Your task to perform on an android device: Search for the best rated kitchen reno kits on Lowes.com Image 0: 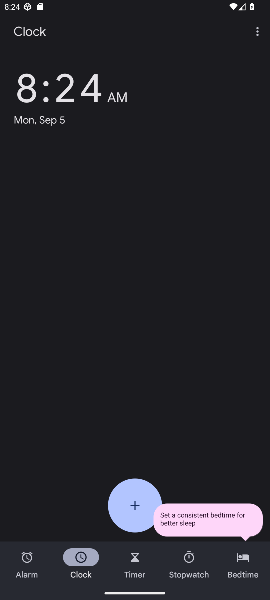
Step 0: press home button
Your task to perform on an android device: Search for the best rated kitchen reno kits on Lowes.com Image 1: 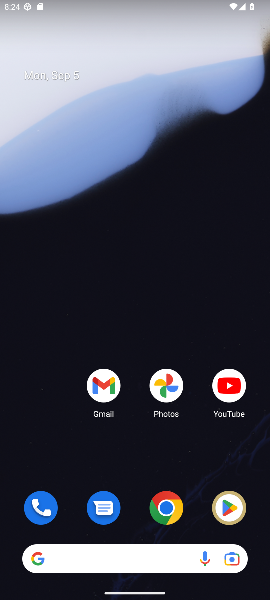
Step 1: click (170, 511)
Your task to perform on an android device: Search for the best rated kitchen reno kits on Lowes.com Image 2: 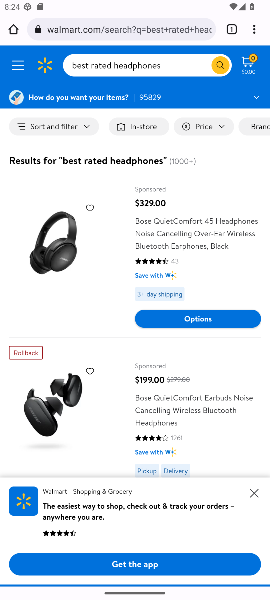
Step 2: click (91, 28)
Your task to perform on an android device: Search for the best rated kitchen reno kits on Lowes.com Image 3: 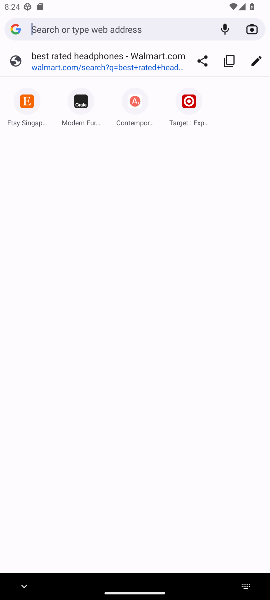
Step 3: type " Lowes.com"
Your task to perform on an android device: Search for the best rated kitchen reno kits on Lowes.com Image 4: 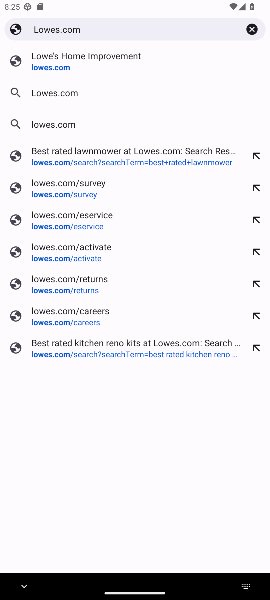
Step 4: click (58, 90)
Your task to perform on an android device: Search for the best rated kitchen reno kits on Lowes.com Image 5: 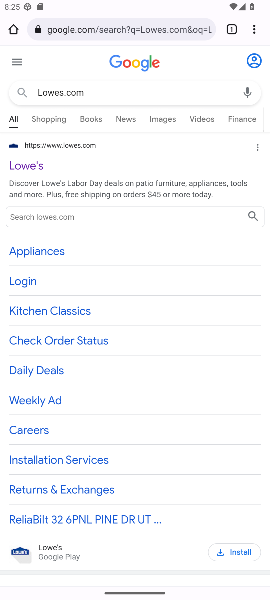
Step 5: click (28, 171)
Your task to perform on an android device: Search for the best rated kitchen reno kits on Lowes.com Image 6: 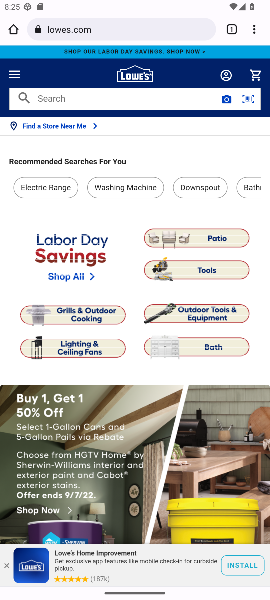
Step 6: click (65, 104)
Your task to perform on an android device: Search for the best rated kitchen reno kits on Lowes.com Image 7: 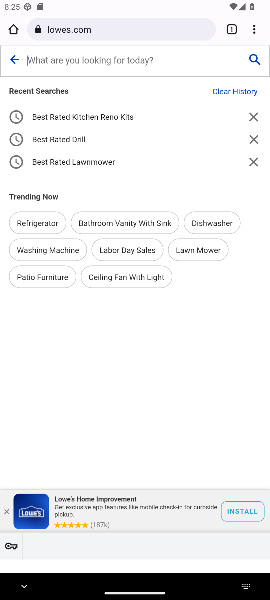
Step 7: type "best rated kitchen reno kits "
Your task to perform on an android device: Search for the best rated kitchen reno kits on Lowes.com Image 8: 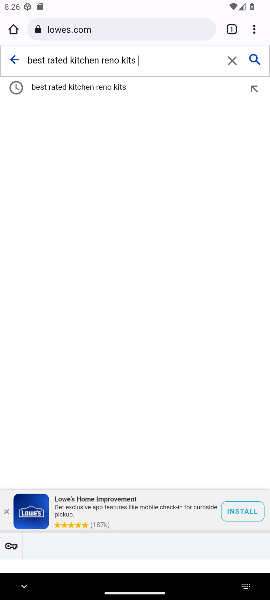
Step 8: click (253, 58)
Your task to perform on an android device: Search for the best rated kitchen reno kits on Lowes.com Image 9: 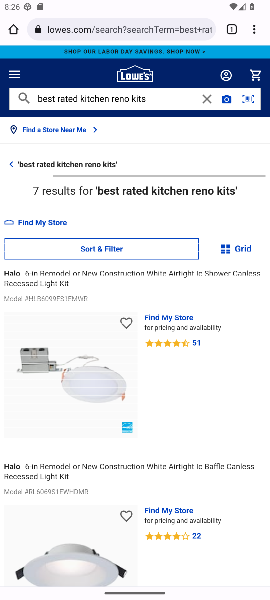
Step 9: click (216, 374)
Your task to perform on an android device: Search for the best rated kitchen reno kits on Lowes.com Image 10: 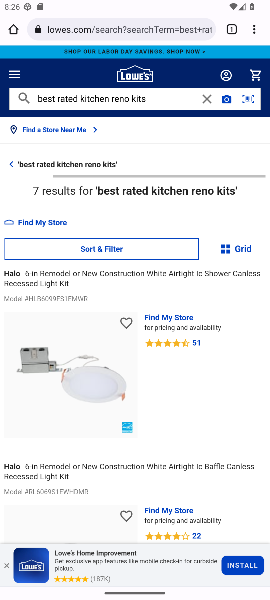
Step 10: task complete